Your task to perform on an android device: change keyboard looks Image 0: 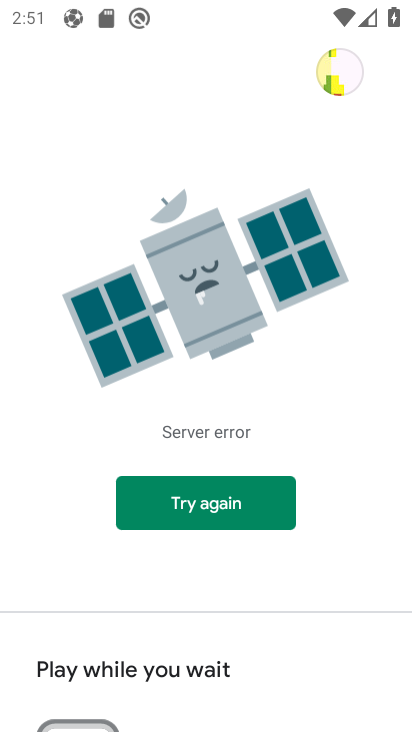
Step 0: press home button
Your task to perform on an android device: change keyboard looks Image 1: 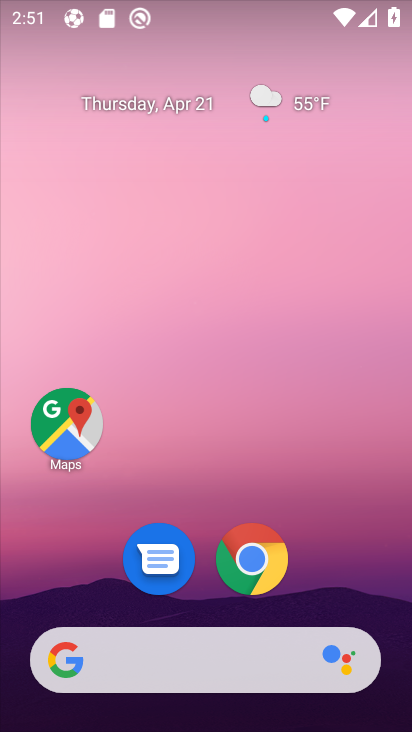
Step 1: drag from (339, 559) to (283, 0)
Your task to perform on an android device: change keyboard looks Image 2: 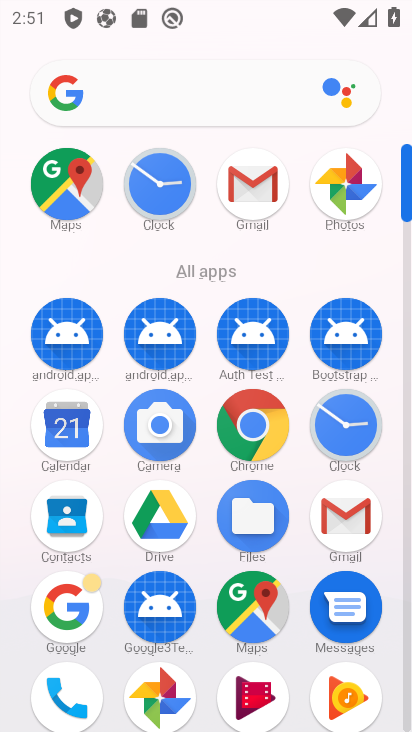
Step 2: drag from (312, 290) to (259, 6)
Your task to perform on an android device: change keyboard looks Image 3: 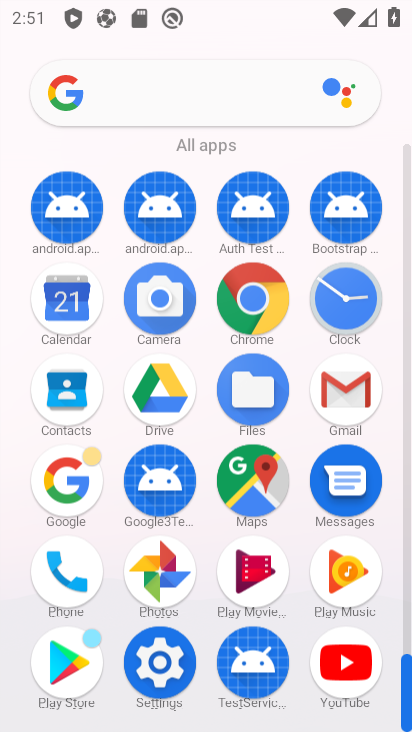
Step 3: click (259, 6)
Your task to perform on an android device: change keyboard looks Image 4: 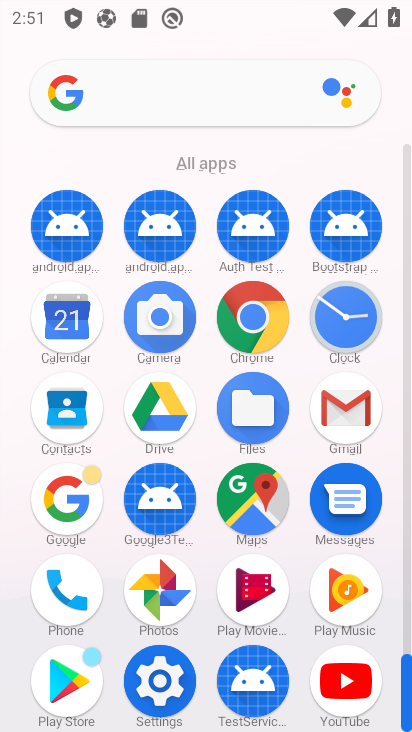
Step 4: click (161, 674)
Your task to perform on an android device: change keyboard looks Image 5: 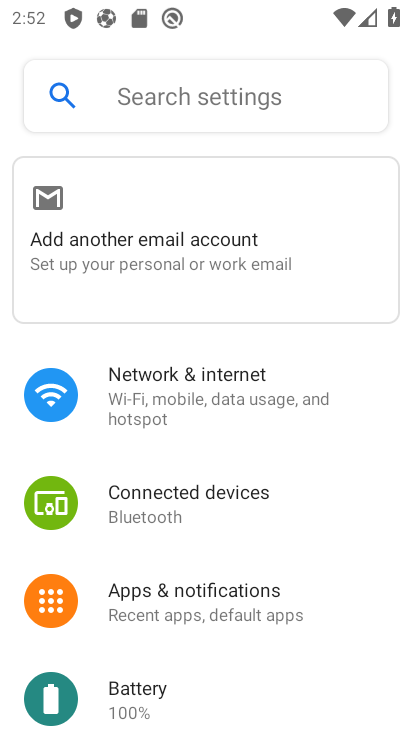
Step 5: drag from (232, 651) to (196, 196)
Your task to perform on an android device: change keyboard looks Image 6: 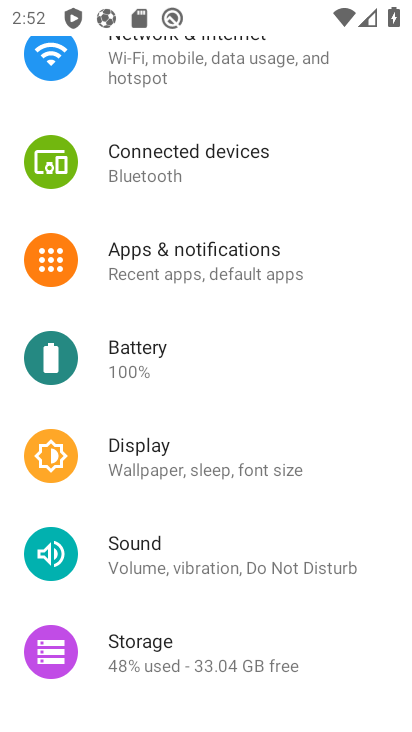
Step 6: drag from (236, 630) to (208, 70)
Your task to perform on an android device: change keyboard looks Image 7: 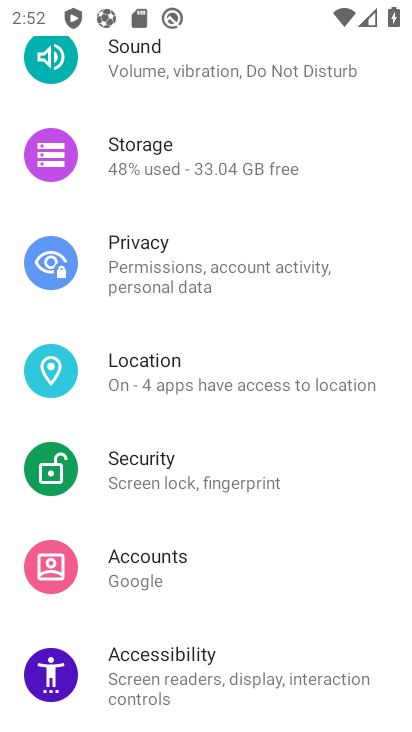
Step 7: drag from (226, 632) to (198, 274)
Your task to perform on an android device: change keyboard looks Image 8: 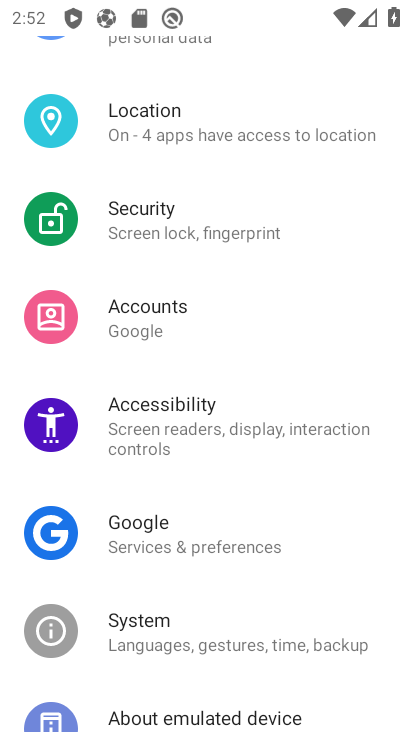
Step 8: drag from (212, 703) to (159, 208)
Your task to perform on an android device: change keyboard looks Image 9: 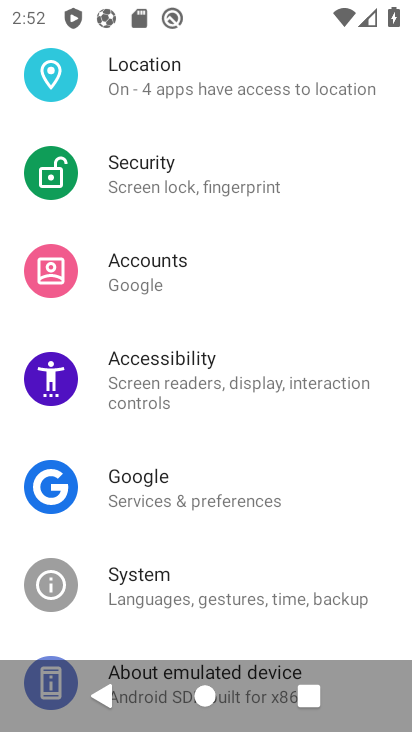
Step 9: drag from (158, 574) to (149, 283)
Your task to perform on an android device: change keyboard looks Image 10: 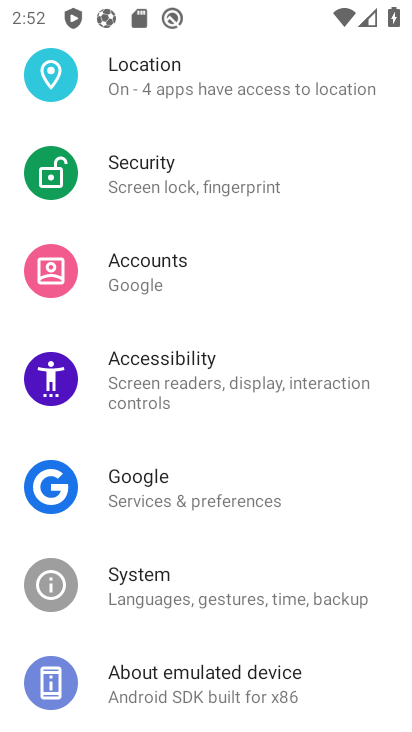
Step 10: drag from (184, 624) to (191, 183)
Your task to perform on an android device: change keyboard looks Image 11: 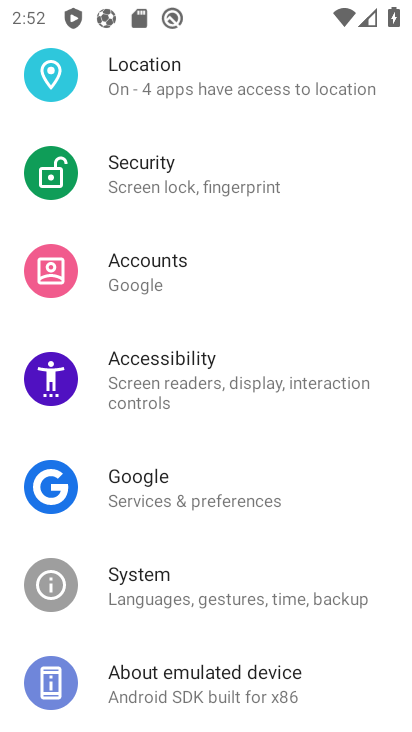
Step 11: click (162, 577)
Your task to perform on an android device: change keyboard looks Image 12: 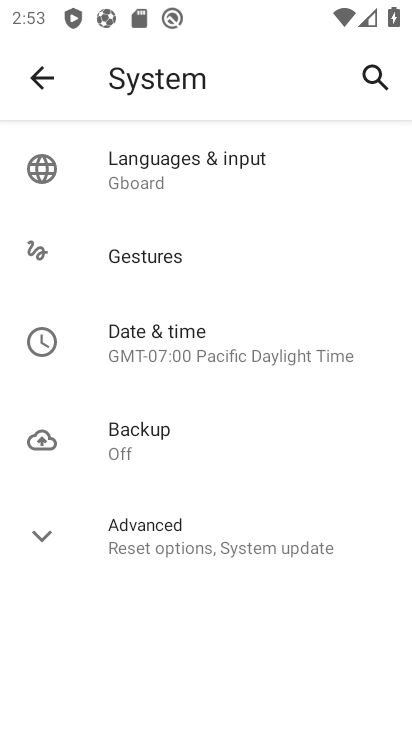
Step 12: click (163, 164)
Your task to perform on an android device: change keyboard looks Image 13: 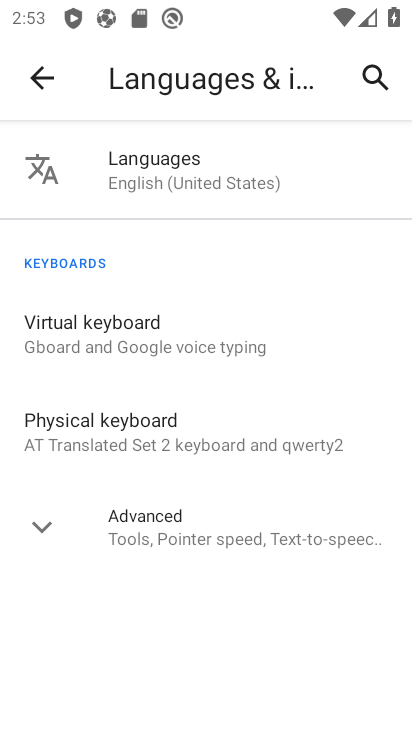
Step 13: click (176, 330)
Your task to perform on an android device: change keyboard looks Image 14: 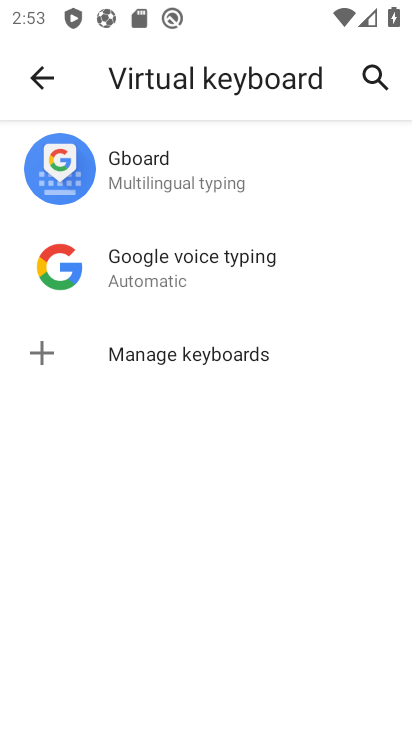
Step 14: click (146, 170)
Your task to perform on an android device: change keyboard looks Image 15: 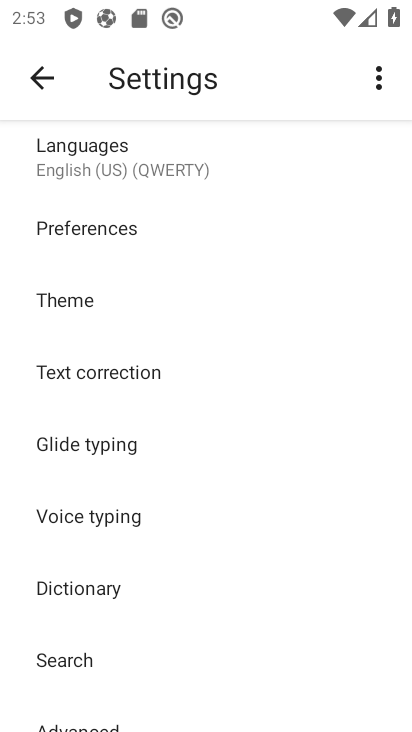
Step 15: click (103, 294)
Your task to perform on an android device: change keyboard looks Image 16: 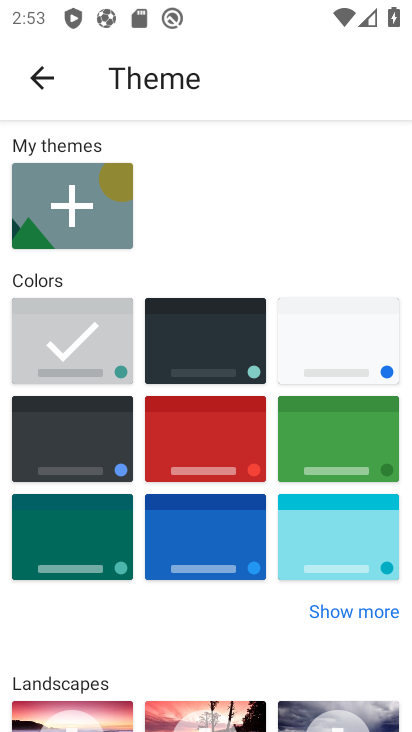
Step 16: click (204, 470)
Your task to perform on an android device: change keyboard looks Image 17: 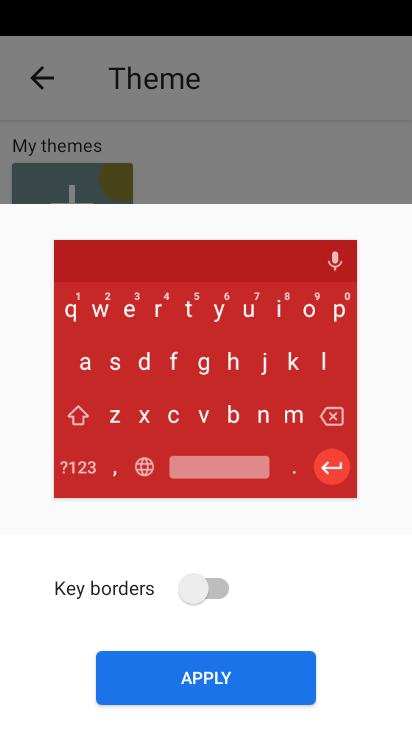
Step 17: click (271, 669)
Your task to perform on an android device: change keyboard looks Image 18: 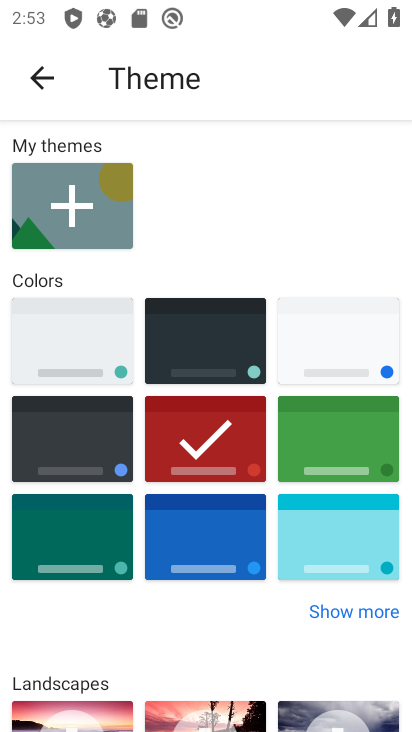
Step 18: task complete